Your task to perform on an android device: set default search engine in the chrome app Image 0: 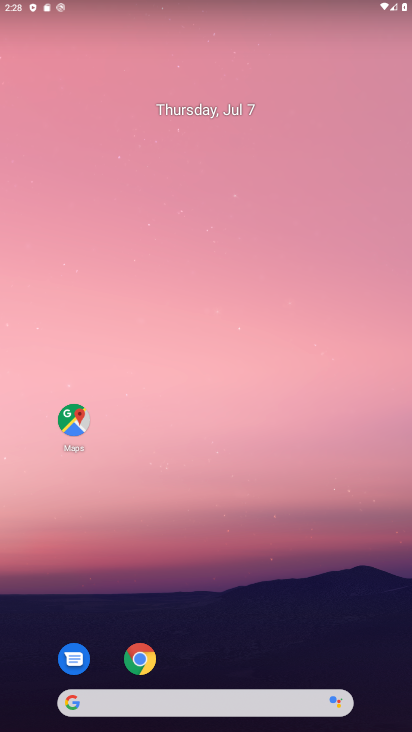
Step 0: click (137, 665)
Your task to perform on an android device: set default search engine in the chrome app Image 1: 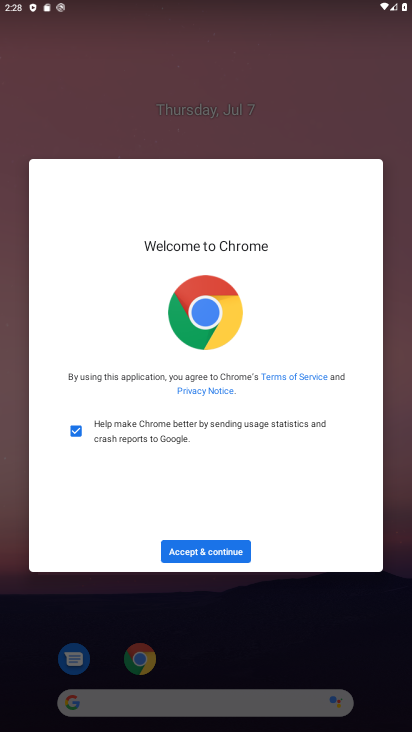
Step 1: click (187, 556)
Your task to perform on an android device: set default search engine in the chrome app Image 2: 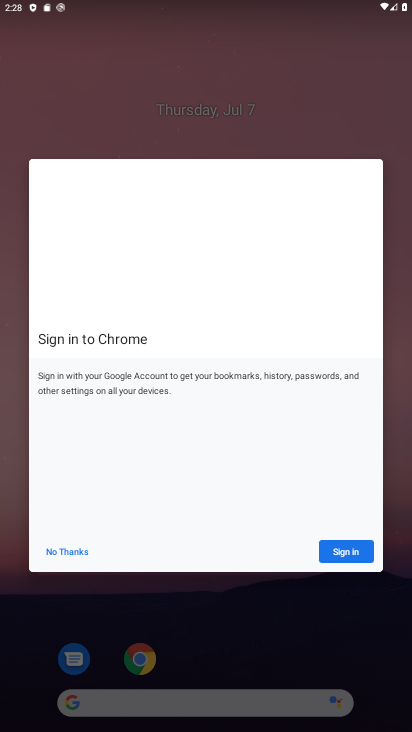
Step 2: click (332, 548)
Your task to perform on an android device: set default search engine in the chrome app Image 3: 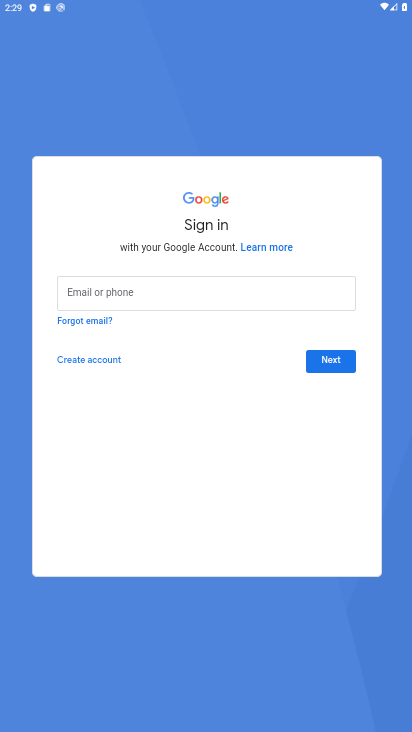
Step 3: task complete